Your task to perform on an android device: turn off improve location accuracy Image 0: 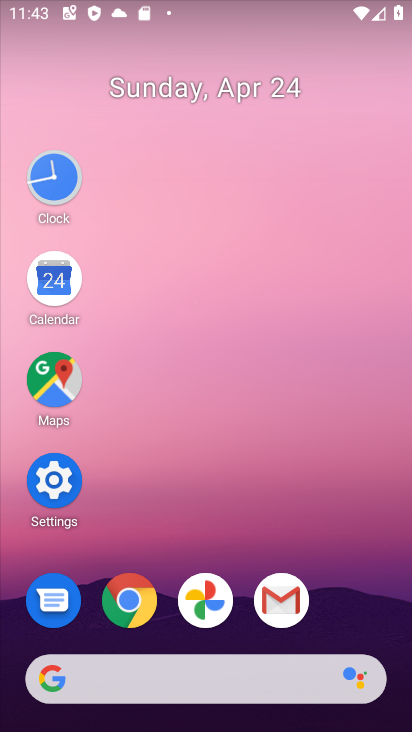
Step 0: click (49, 467)
Your task to perform on an android device: turn off improve location accuracy Image 1: 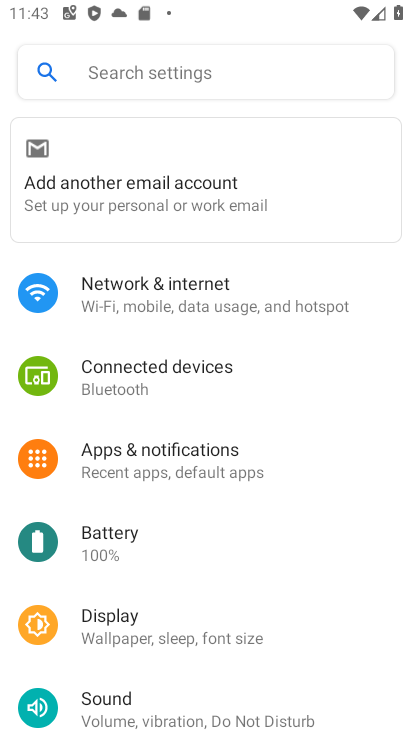
Step 1: drag from (195, 499) to (182, 96)
Your task to perform on an android device: turn off improve location accuracy Image 2: 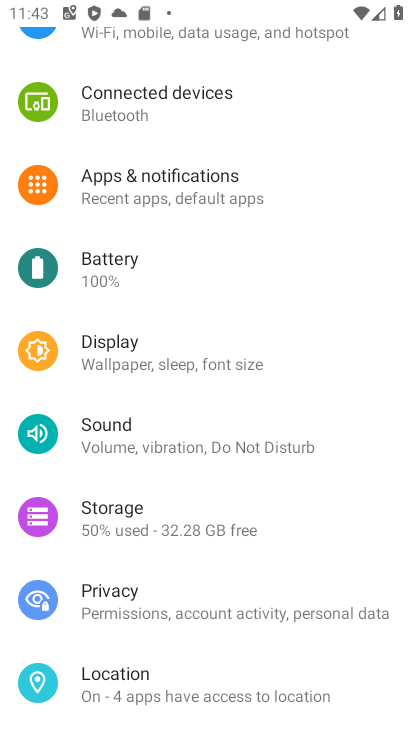
Step 2: click (120, 670)
Your task to perform on an android device: turn off improve location accuracy Image 3: 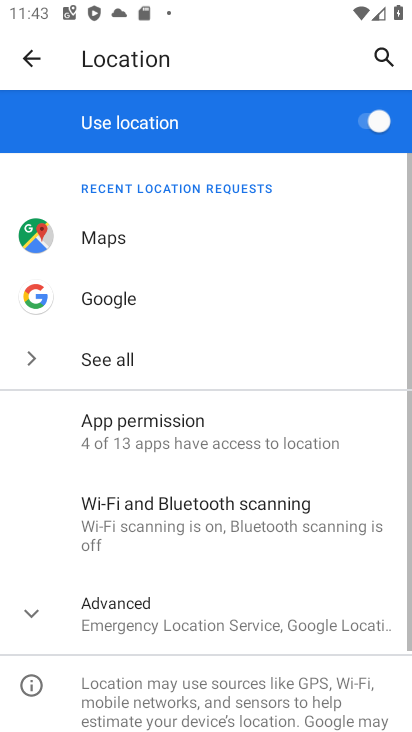
Step 3: click (82, 606)
Your task to perform on an android device: turn off improve location accuracy Image 4: 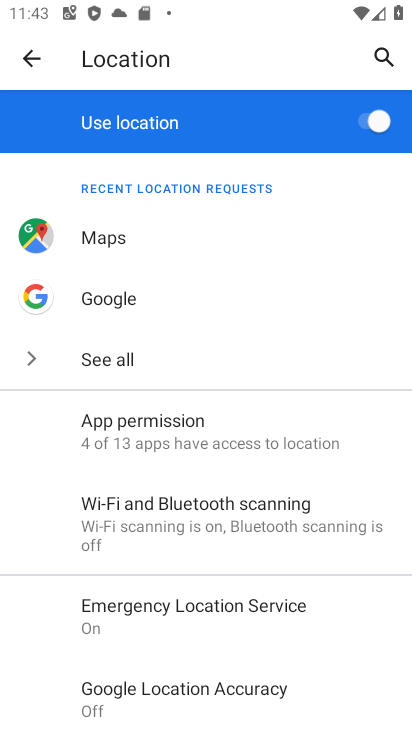
Step 4: drag from (190, 634) to (157, 352)
Your task to perform on an android device: turn off improve location accuracy Image 5: 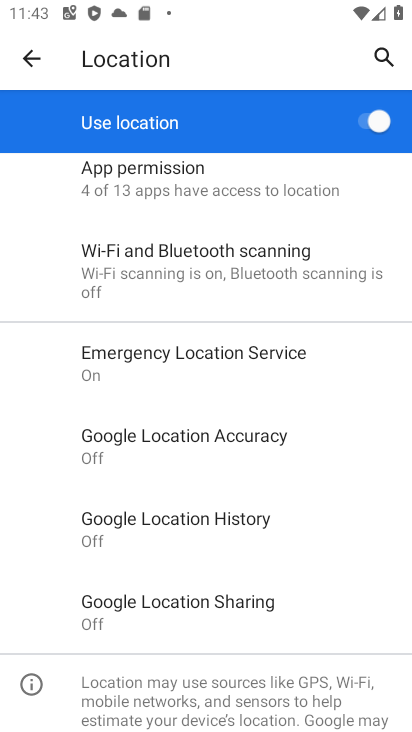
Step 5: click (139, 435)
Your task to perform on an android device: turn off improve location accuracy Image 6: 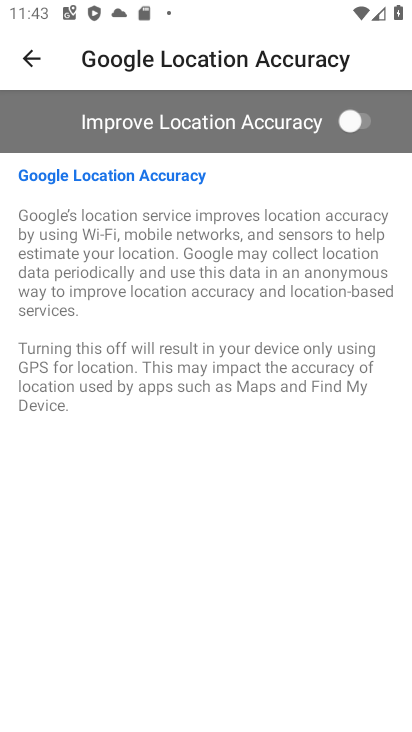
Step 6: task complete